Your task to perform on an android device: See recent photos Image 0: 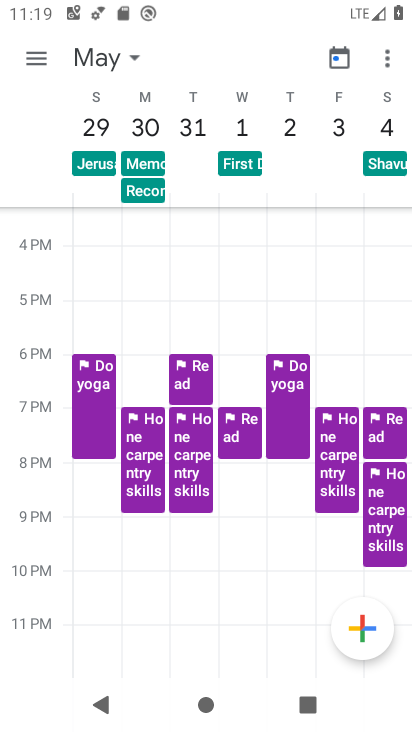
Step 0: press home button
Your task to perform on an android device: See recent photos Image 1: 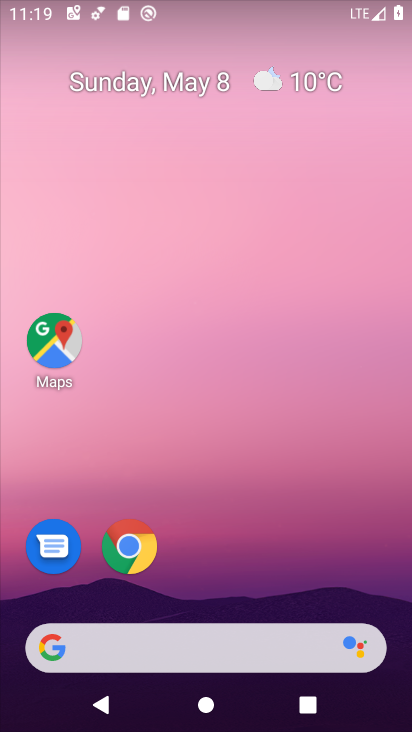
Step 1: drag from (386, 609) to (360, 56)
Your task to perform on an android device: See recent photos Image 2: 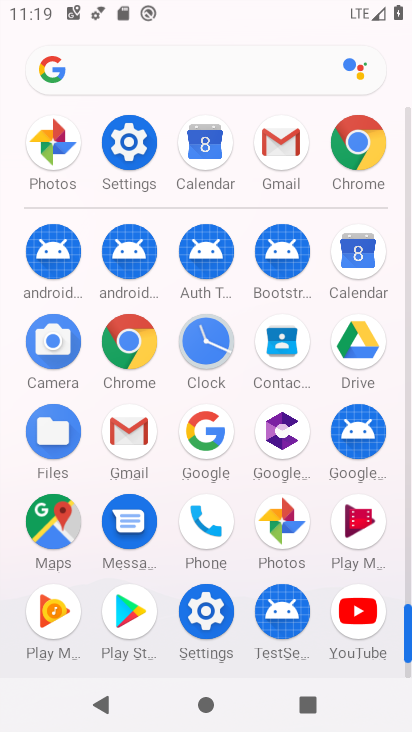
Step 2: click (279, 519)
Your task to perform on an android device: See recent photos Image 3: 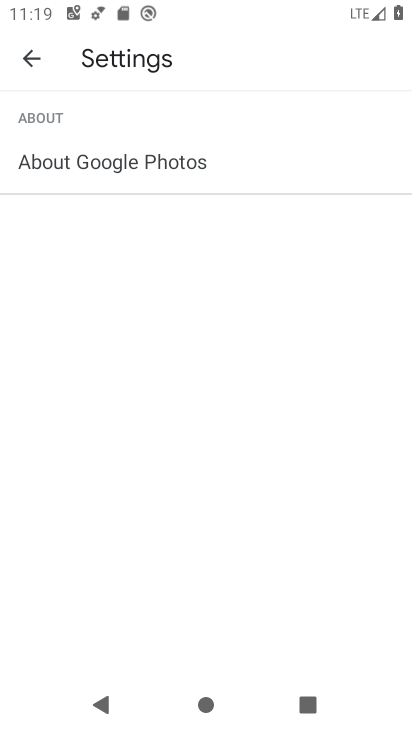
Step 3: task complete